Your task to perform on an android device: Search for "usb-c to usb-a" on costco.com, select the first entry, add it to the cart, then select checkout. Image 0: 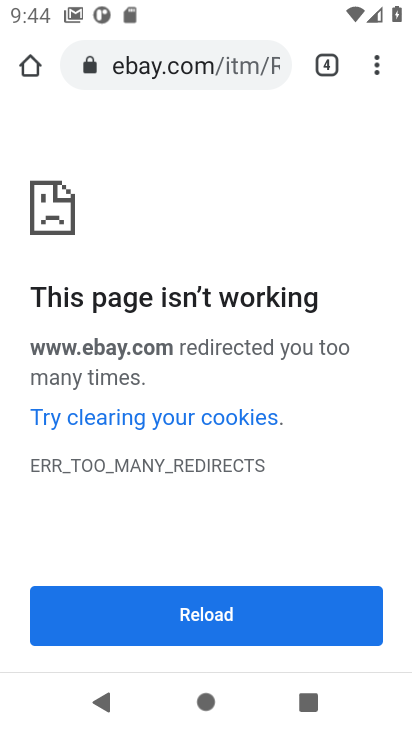
Step 0: click (239, 65)
Your task to perform on an android device: Search for "usb-c to usb-a" on costco.com, select the first entry, add it to the cart, then select checkout. Image 1: 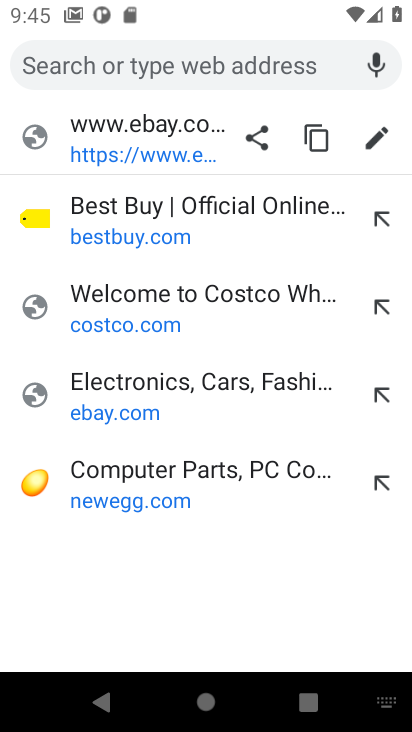
Step 1: type " costco.com"
Your task to perform on an android device: Search for "usb-c to usb-a" on costco.com, select the first entry, add it to the cart, then select checkout. Image 2: 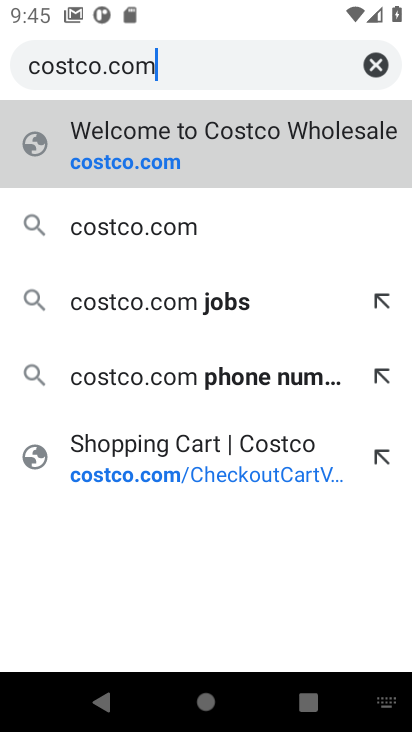
Step 2: press enter
Your task to perform on an android device: Search for "usb-c to usb-a" on costco.com, select the first entry, add it to the cart, then select checkout. Image 3: 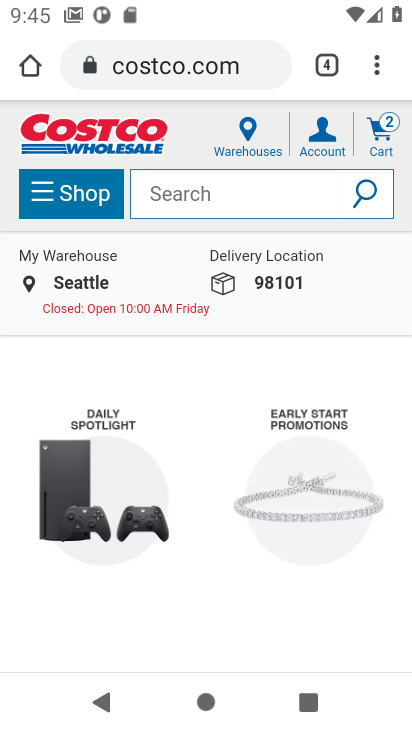
Step 3: click (215, 185)
Your task to perform on an android device: Search for "usb-c to usb-a" on costco.com, select the first entry, add it to the cart, then select checkout. Image 4: 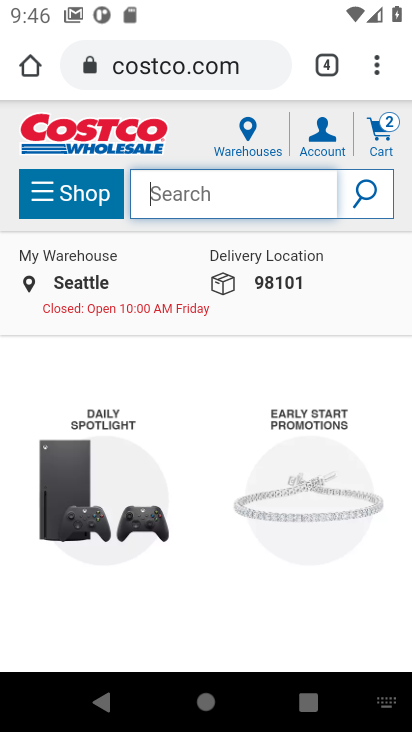
Step 4: type "costco.com"
Your task to perform on an android device: Search for "usb-c to usb-a" on costco.com, select the first entry, add it to the cart, then select checkout. Image 5: 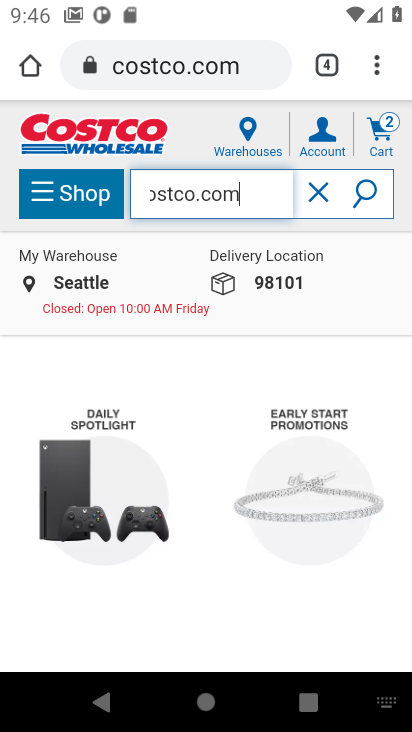
Step 5: press enter
Your task to perform on an android device: Search for "usb-c to usb-a" on costco.com, select the first entry, add it to the cart, then select checkout. Image 6: 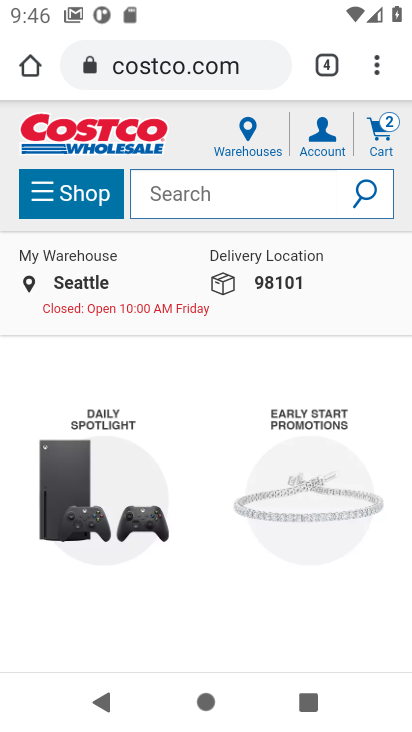
Step 6: drag from (157, 524) to (202, 225)
Your task to perform on an android device: Search for "usb-c to usb-a" on costco.com, select the first entry, add it to the cart, then select checkout. Image 7: 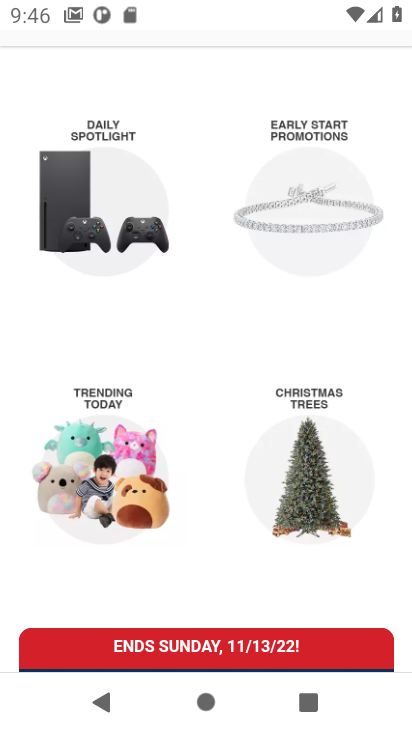
Step 7: drag from (186, 246) to (230, 558)
Your task to perform on an android device: Search for "usb-c to usb-a" on costco.com, select the first entry, add it to the cart, then select checkout. Image 8: 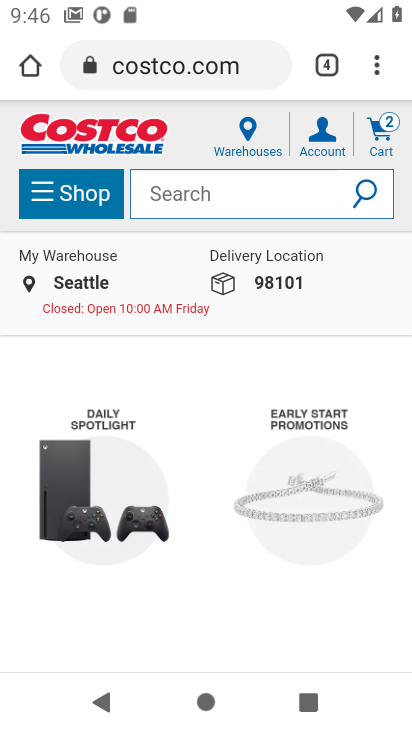
Step 8: click (216, 198)
Your task to perform on an android device: Search for "usb-c to usb-a" on costco.com, select the first entry, add it to the cart, then select checkout. Image 9: 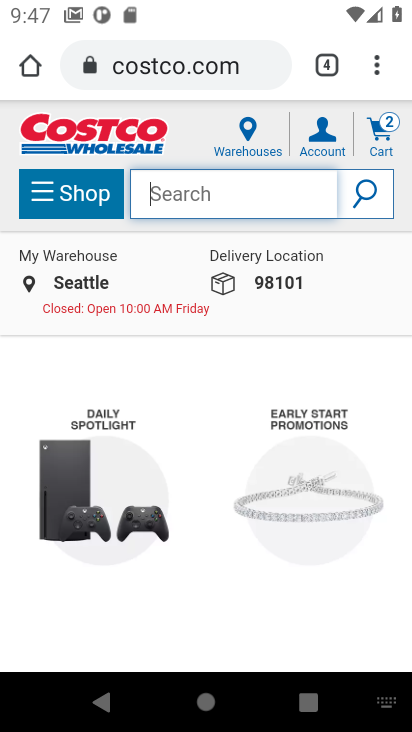
Step 9: type "usb-c to usb-a"
Your task to perform on an android device: Search for "usb-c to usb-a" on costco.com, select the first entry, add it to the cart, then select checkout. Image 10: 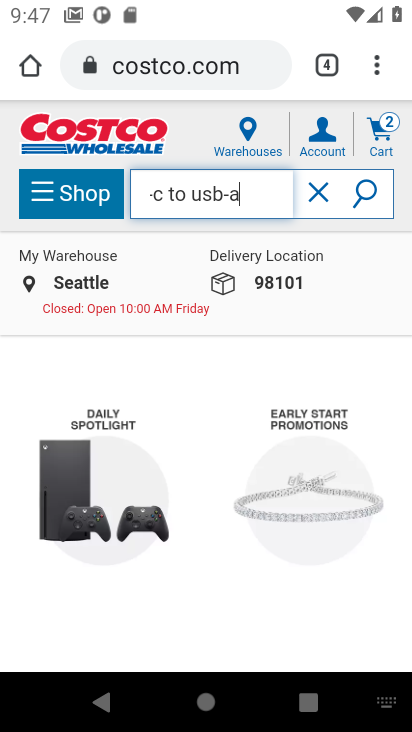
Step 10: press enter
Your task to perform on an android device: Search for "usb-c to usb-a" on costco.com, select the first entry, add it to the cart, then select checkout. Image 11: 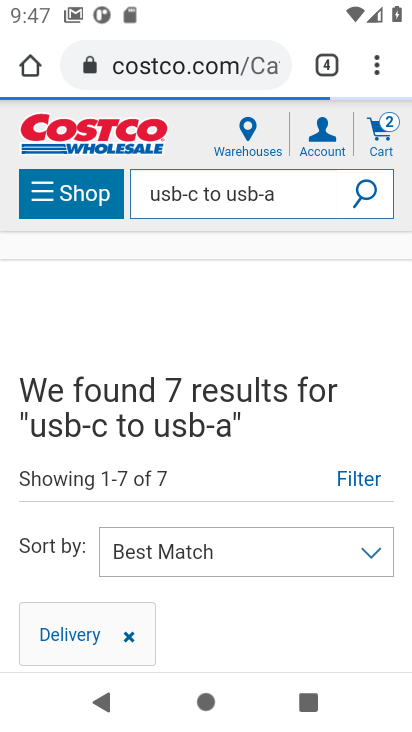
Step 11: drag from (106, 550) to (155, 287)
Your task to perform on an android device: Search for "usb-c to usb-a" on costco.com, select the first entry, add it to the cart, then select checkout. Image 12: 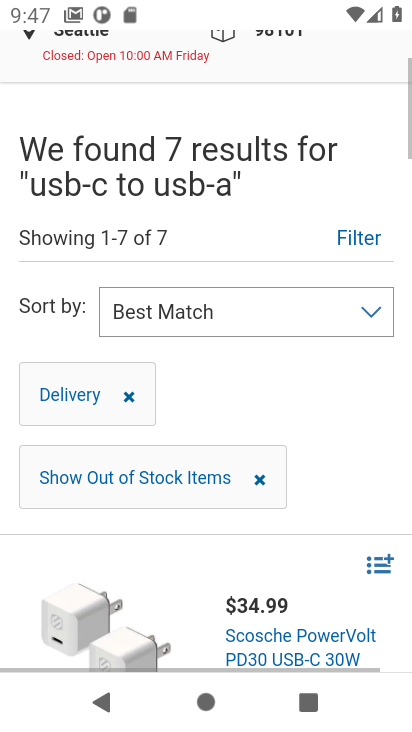
Step 12: drag from (185, 499) to (205, 227)
Your task to perform on an android device: Search for "usb-c to usb-a" on costco.com, select the first entry, add it to the cart, then select checkout. Image 13: 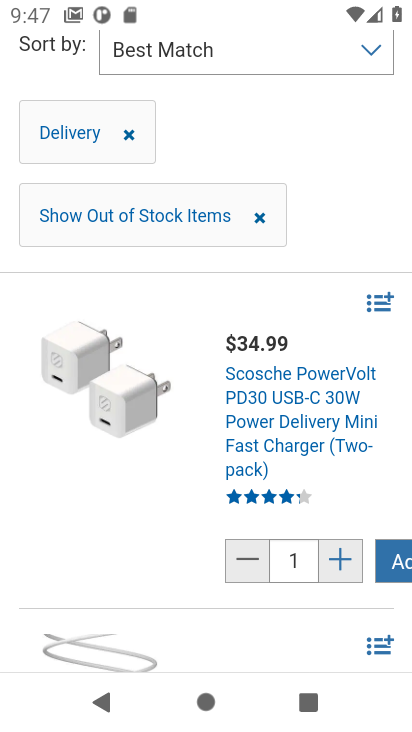
Step 13: drag from (339, 364) to (321, 620)
Your task to perform on an android device: Search for "usb-c to usb-a" on costco.com, select the first entry, add it to the cart, then select checkout. Image 14: 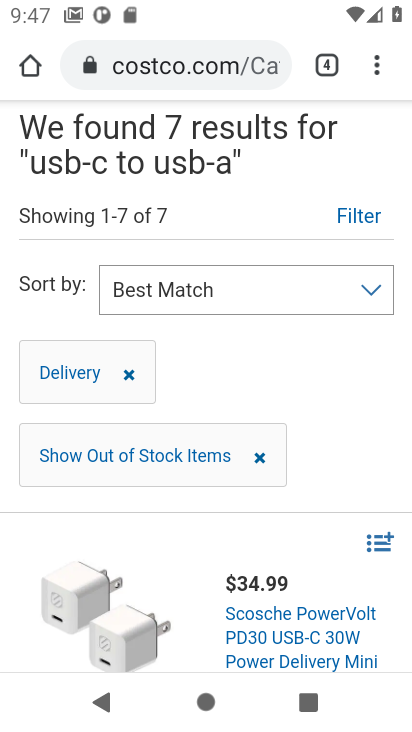
Step 14: drag from (289, 528) to (316, 259)
Your task to perform on an android device: Search for "usb-c to usb-a" on costco.com, select the first entry, add it to the cart, then select checkout. Image 15: 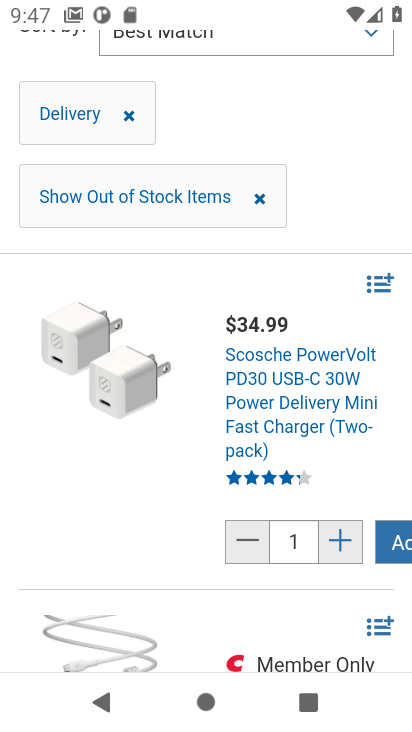
Step 15: click (398, 539)
Your task to perform on an android device: Search for "usb-c to usb-a" on costco.com, select the first entry, add it to the cart, then select checkout. Image 16: 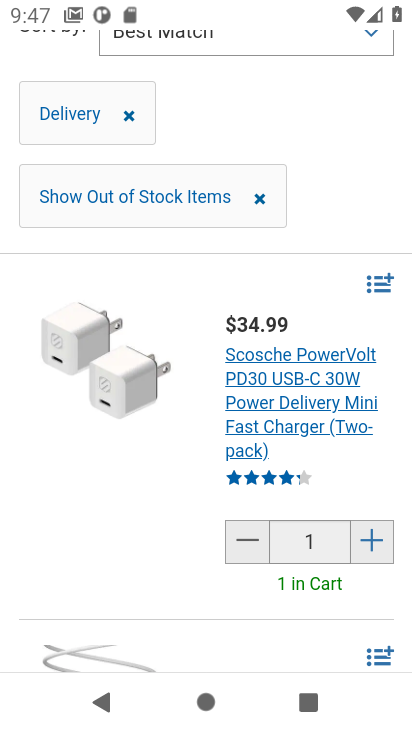
Step 16: drag from (325, 284) to (330, 577)
Your task to perform on an android device: Search for "usb-c to usb-a" on costco.com, select the first entry, add it to the cart, then select checkout. Image 17: 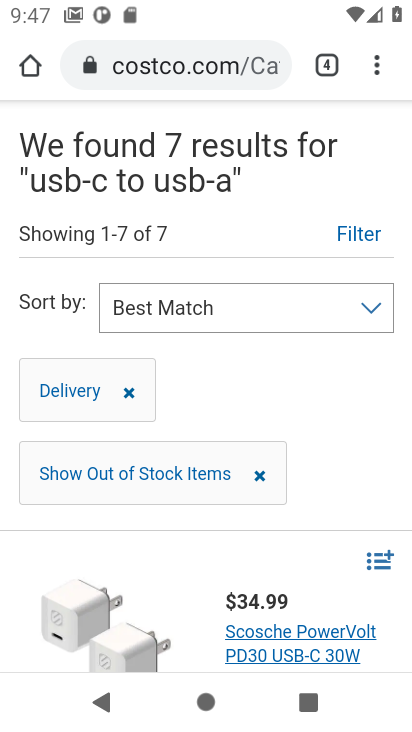
Step 17: drag from (335, 424) to (323, 573)
Your task to perform on an android device: Search for "usb-c to usb-a" on costco.com, select the first entry, add it to the cart, then select checkout. Image 18: 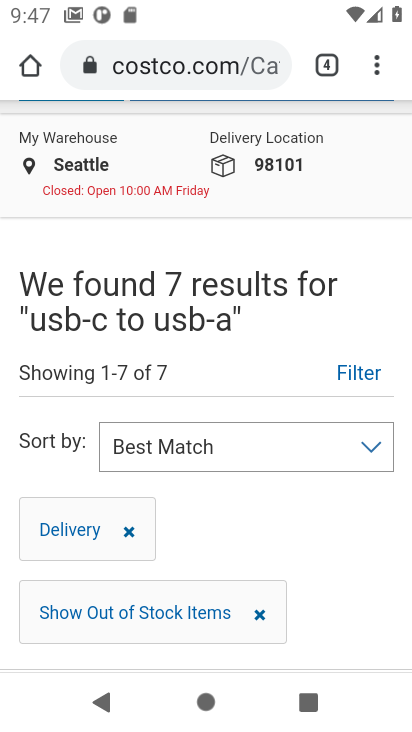
Step 18: drag from (307, 302) to (327, 524)
Your task to perform on an android device: Search for "usb-c to usb-a" on costco.com, select the first entry, add it to the cart, then select checkout. Image 19: 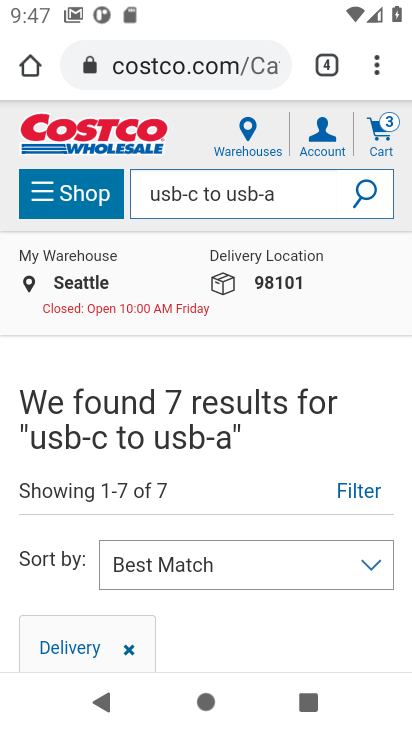
Step 19: click (377, 133)
Your task to perform on an android device: Search for "usb-c to usb-a" on costco.com, select the first entry, add it to the cart, then select checkout. Image 20: 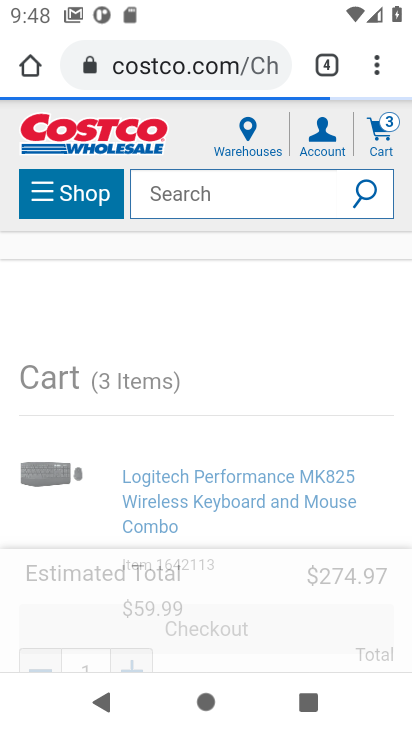
Step 20: click (201, 643)
Your task to perform on an android device: Search for "usb-c to usb-a" on costco.com, select the first entry, add it to the cart, then select checkout. Image 21: 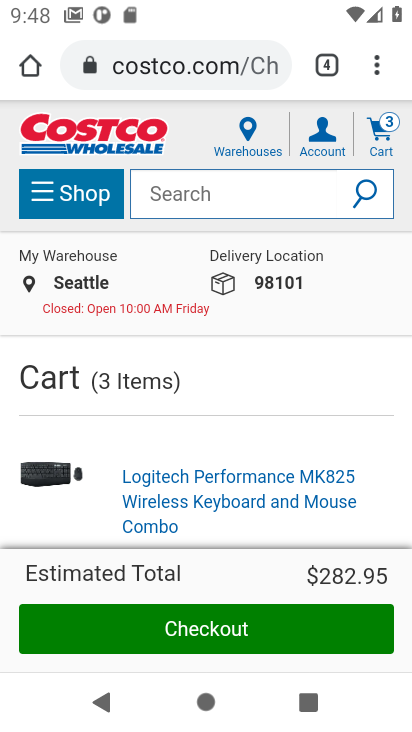
Step 21: click (199, 638)
Your task to perform on an android device: Search for "usb-c to usb-a" on costco.com, select the first entry, add it to the cart, then select checkout. Image 22: 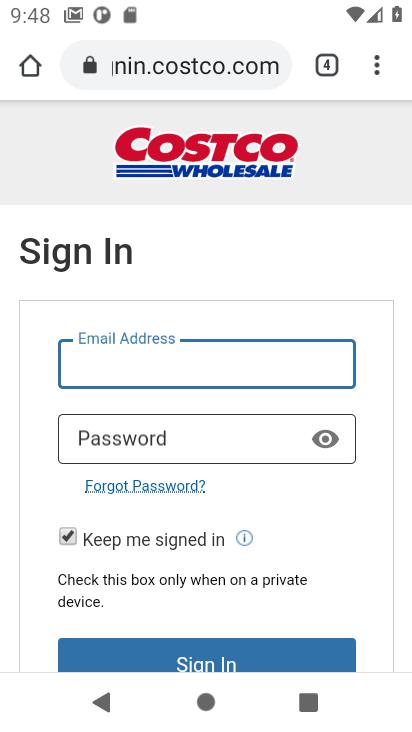
Step 22: task complete